Your task to perform on an android device: Search for hotels in Seattle Image 0: 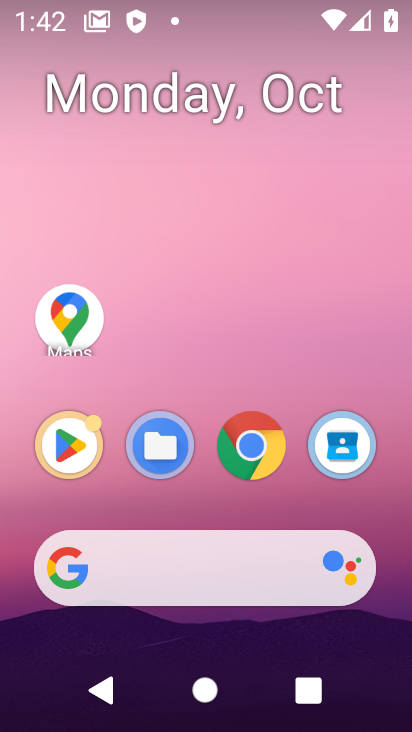
Step 0: click (218, 558)
Your task to perform on an android device: Search for hotels in Seattle Image 1: 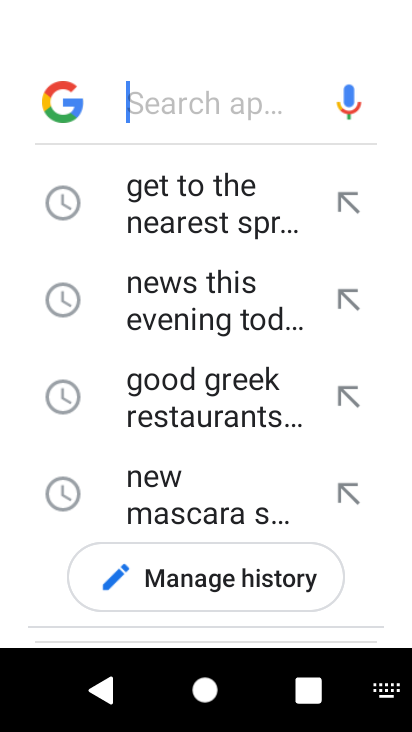
Step 1: click (408, 714)
Your task to perform on an android device: Search for hotels in Seattle Image 2: 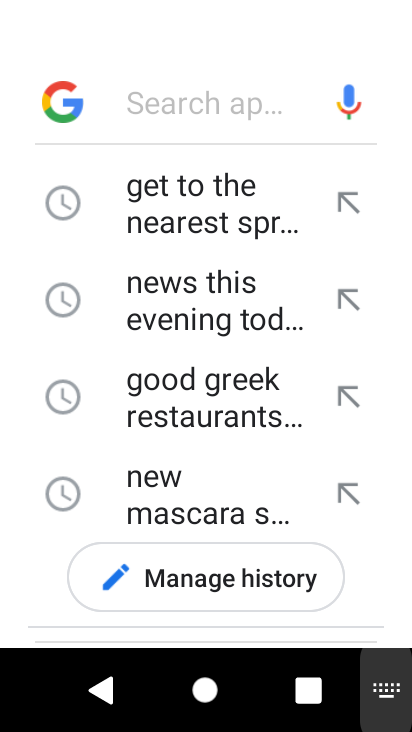
Step 2: type "hotels in Seattle"
Your task to perform on an android device: Search for hotels in Seattle Image 3: 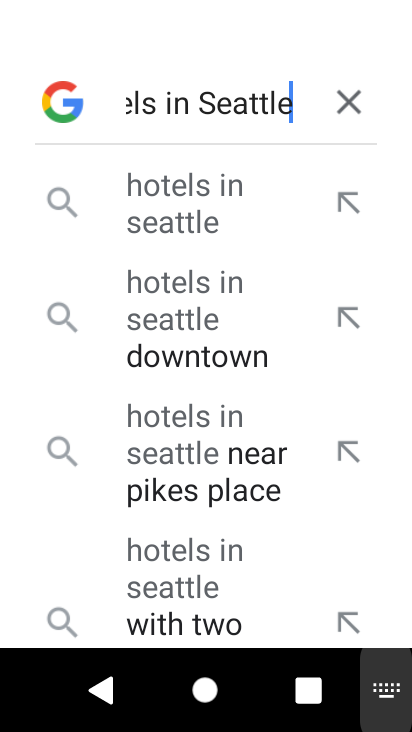
Step 3: type ""
Your task to perform on an android device: Search for hotels in Seattle Image 4: 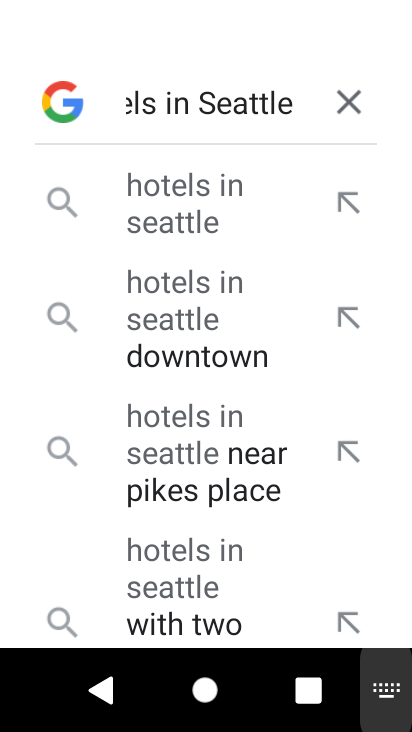
Step 4: drag from (408, 714) to (401, 291)
Your task to perform on an android device: Search for hotels in Seattle Image 5: 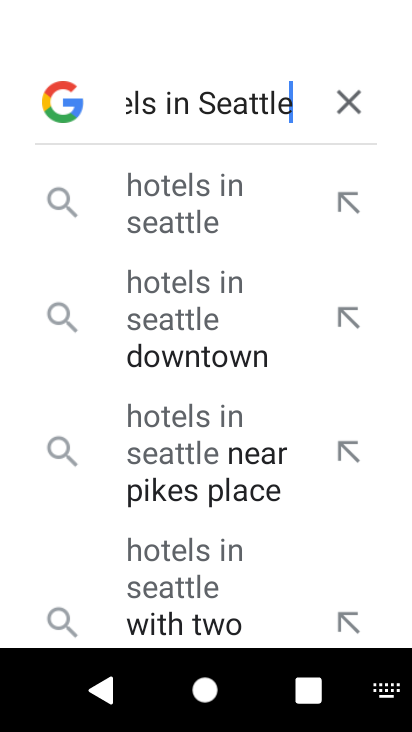
Step 5: click (234, 214)
Your task to perform on an android device: Search for hotels in Seattle Image 6: 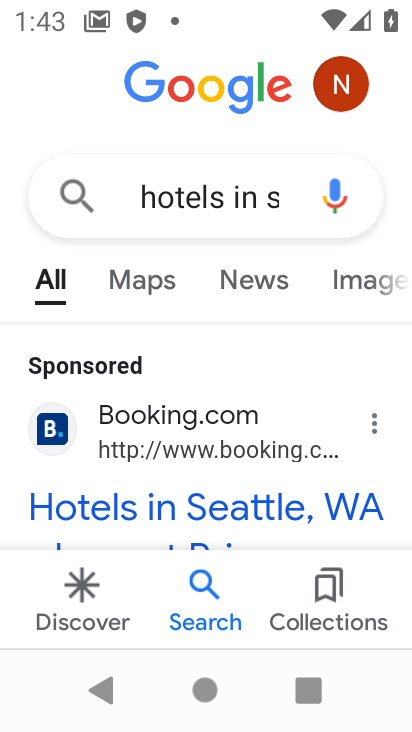
Step 6: task complete